Your task to perform on an android device: uninstall "Life360: Find Family & Friends" Image 0: 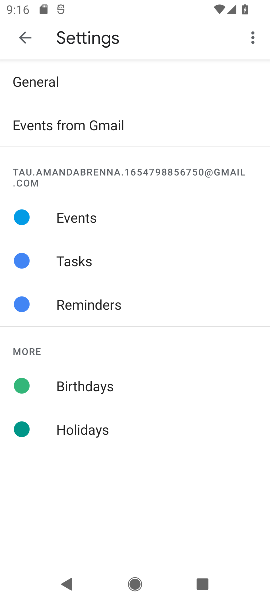
Step 0: press back button
Your task to perform on an android device: uninstall "Life360: Find Family & Friends" Image 1: 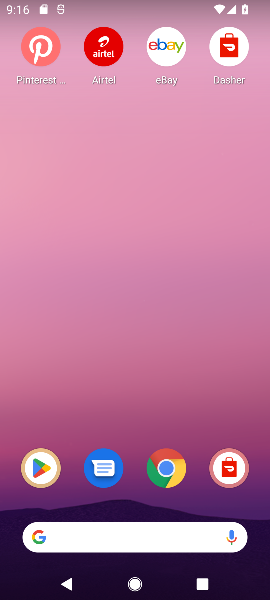
Step 1: click (47, 474)
Your task to perform on an android device: uninstall "Life360: Find Family & Friends" Image 2: 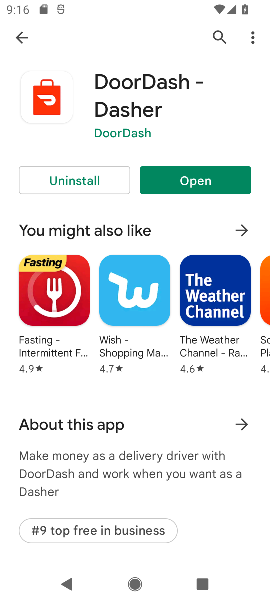
Step 2: click (213, 37)
Your task to perform on an android device: uninstall "Life360: Find Family & Friends" Image 3: 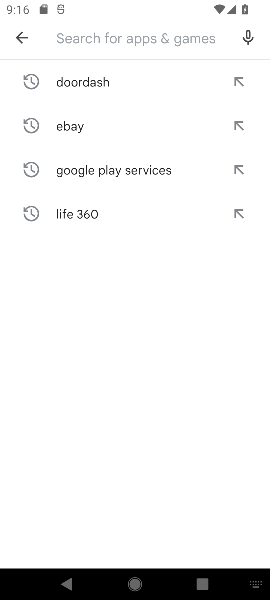
Step 3: click (105, 216)
Your task to perform on an android device: uninstall "Life360: Find Family & Friends" Image 4: 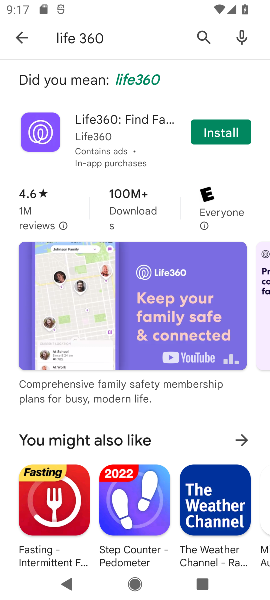
Step 4: task complete